Your task to perform on an android device: open a new tab in the chrome app Image 0: 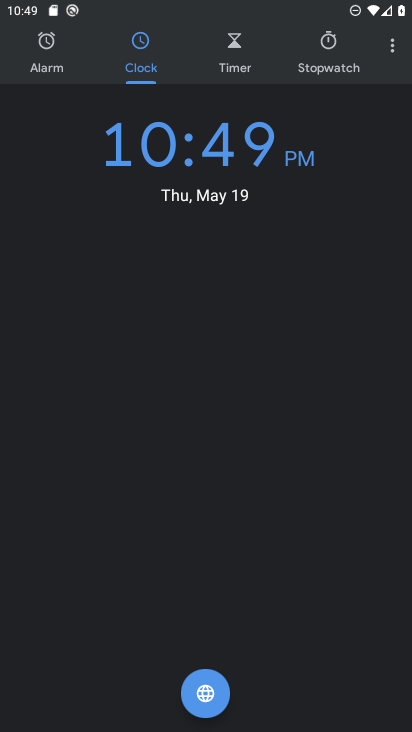
Step 0: press back button
Your task to perform on an android device: open a new tab in the chrome app Image 1: 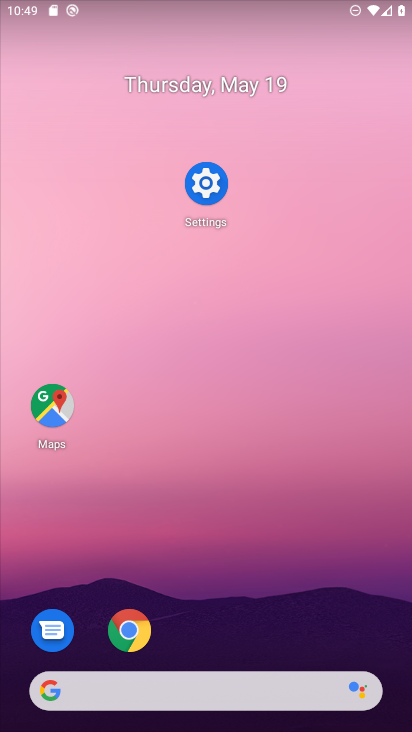
Step 1: drag from (275, 587) to (47, 94)
Your task to perform on an android device: open a new tab in the chrome app Image 2: 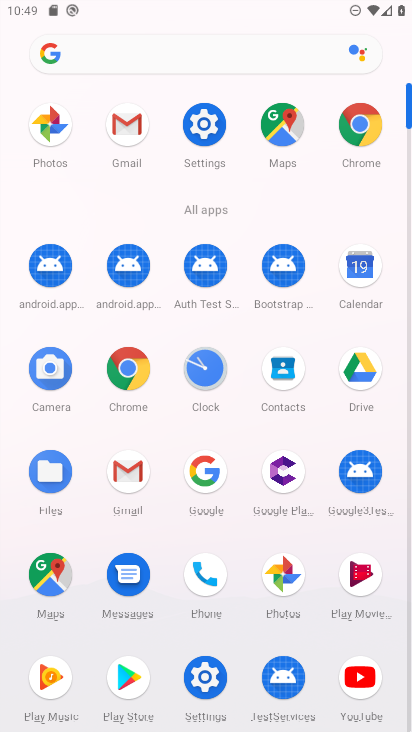
Step 2: click (363, 126)
Your task to perform on an android device: open a new tab in the chrome app Image 3: 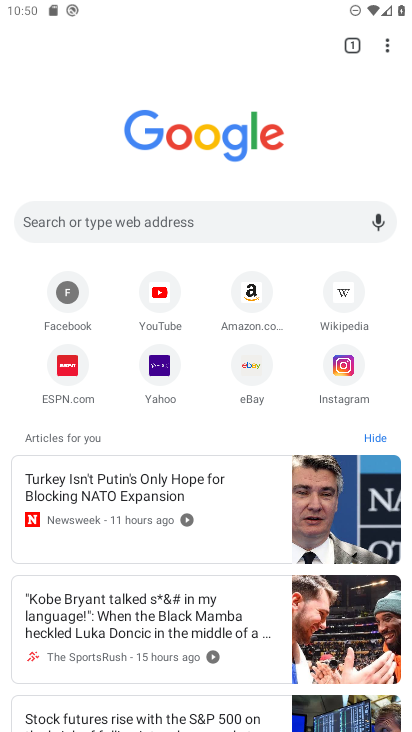
Step 3: drag from (386, 44) to (218, 90)
Your task to perform on an android device: open a new tab in the chrome app Image 4: 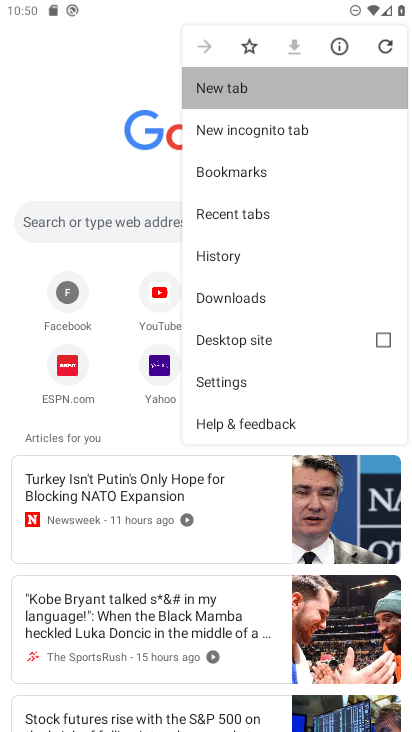
Step 4: click (221, 85)
Your task to perform on an android device: open a new tab in the chrome app Image 5: 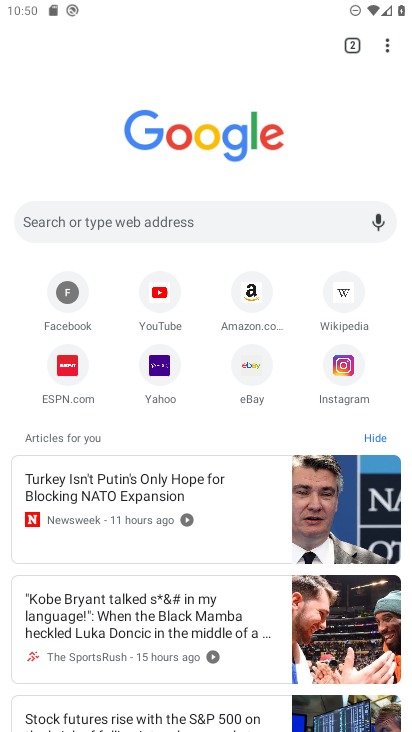
Step 5: task complete